Your task to perform on an android device: Clear the cart on bestbuy. Add macbook pro 15 inch to the cart on bestbuy Image 0: 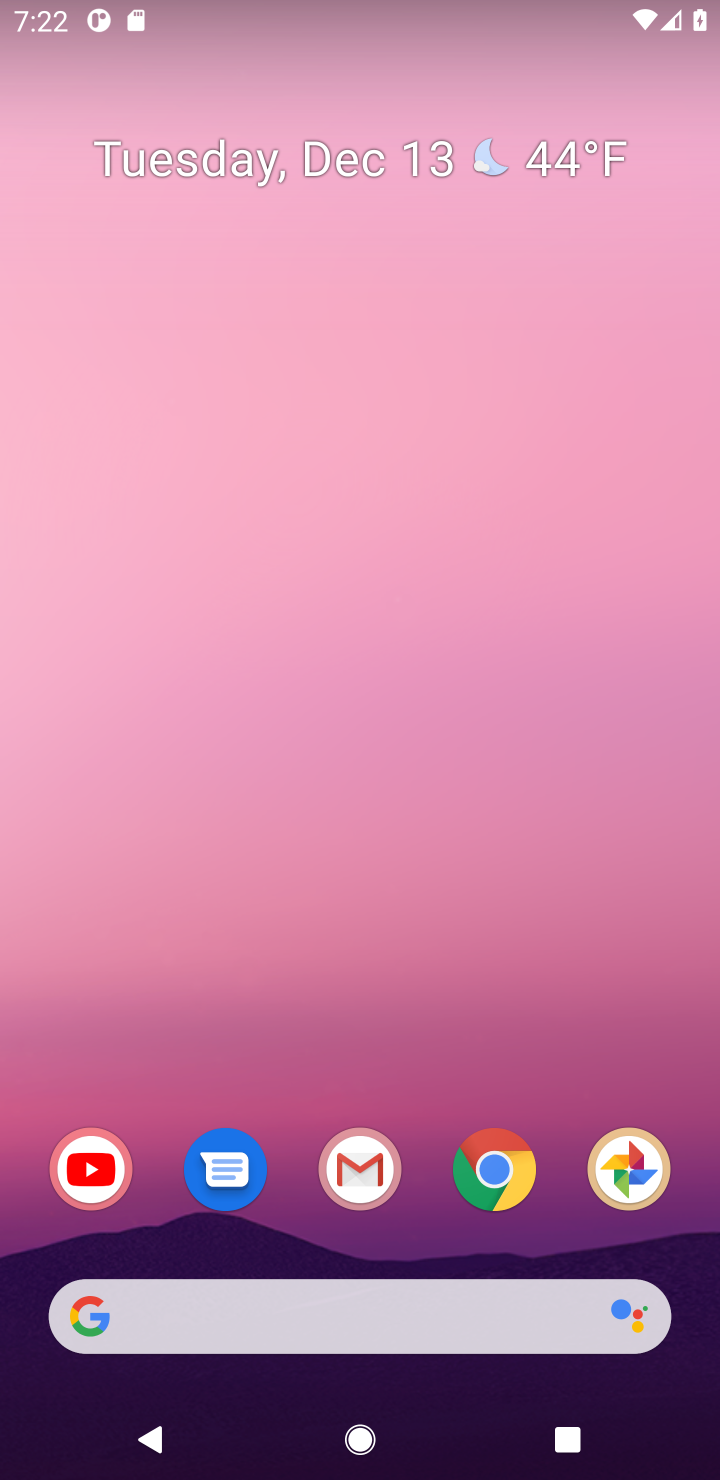
Step 0: click (451, 1320)
Your task to perform on an android device: Clear the cart on bestbuy. Add macbook pro 15 inch to the cart on bestbuy Image 1: 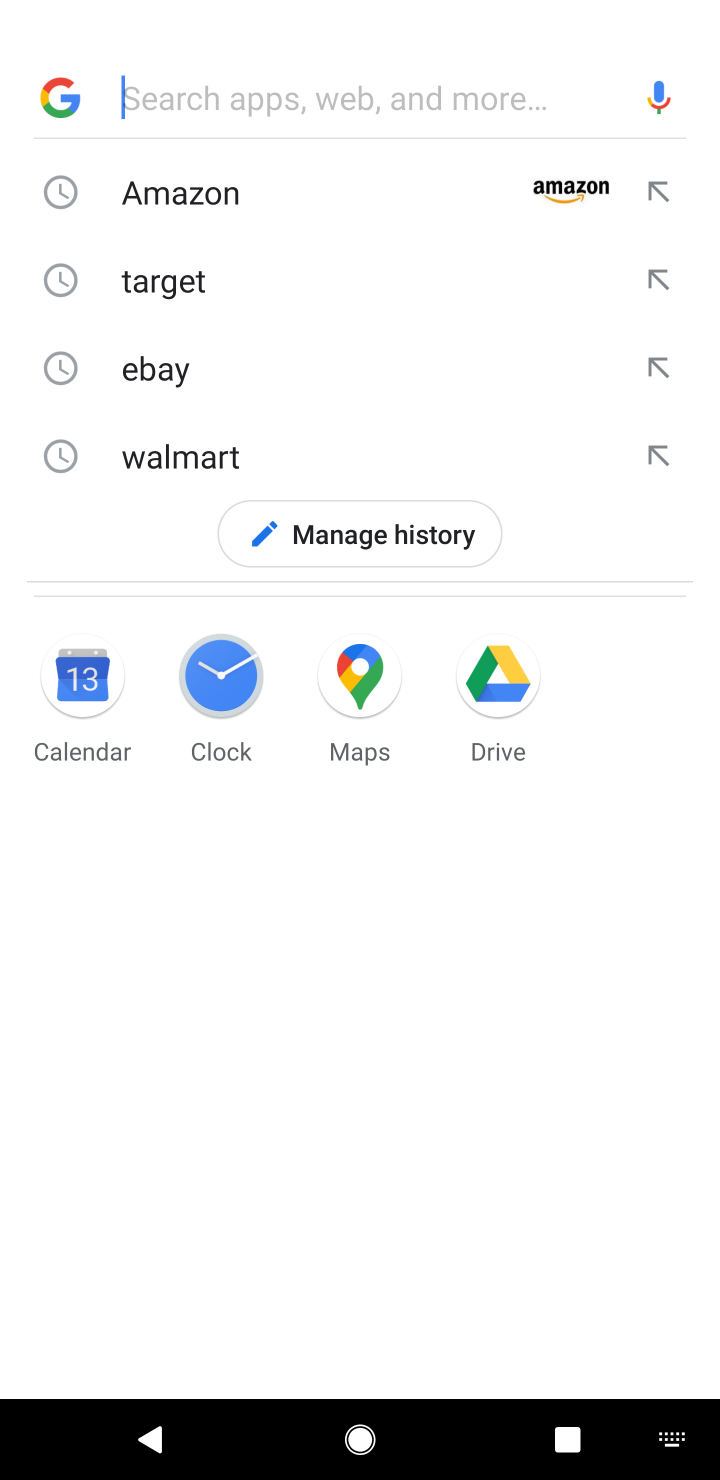
Step 1: press home button
Your task to perform on an android device: Clear the cart on bestbuy. Add macbook pro 15 inch to the cart on bestbuy Image 2: 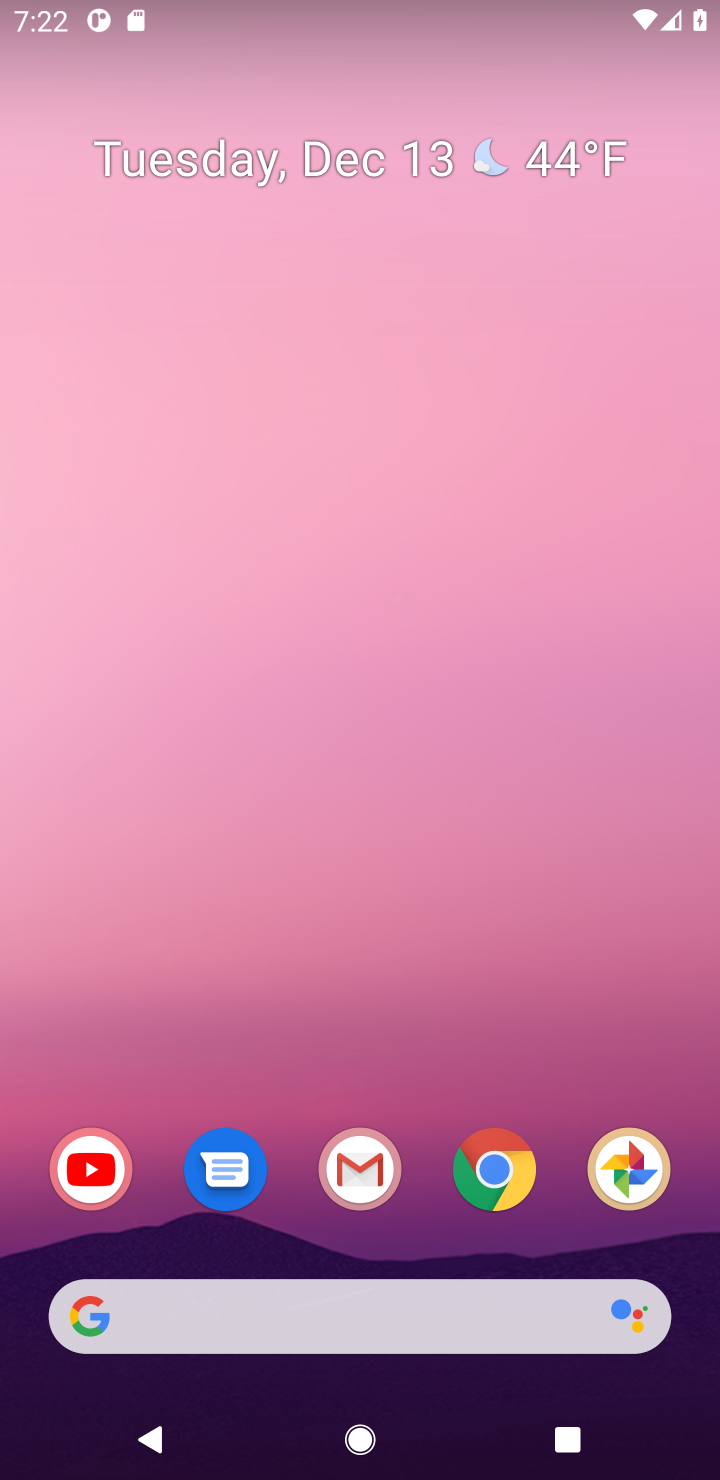
Step 2: click (694, 1154)
Your task to perform on an android device: Clear the cart on bestbuy. Add macbook pro 15 inch to the cart on bestbuy Image 3: 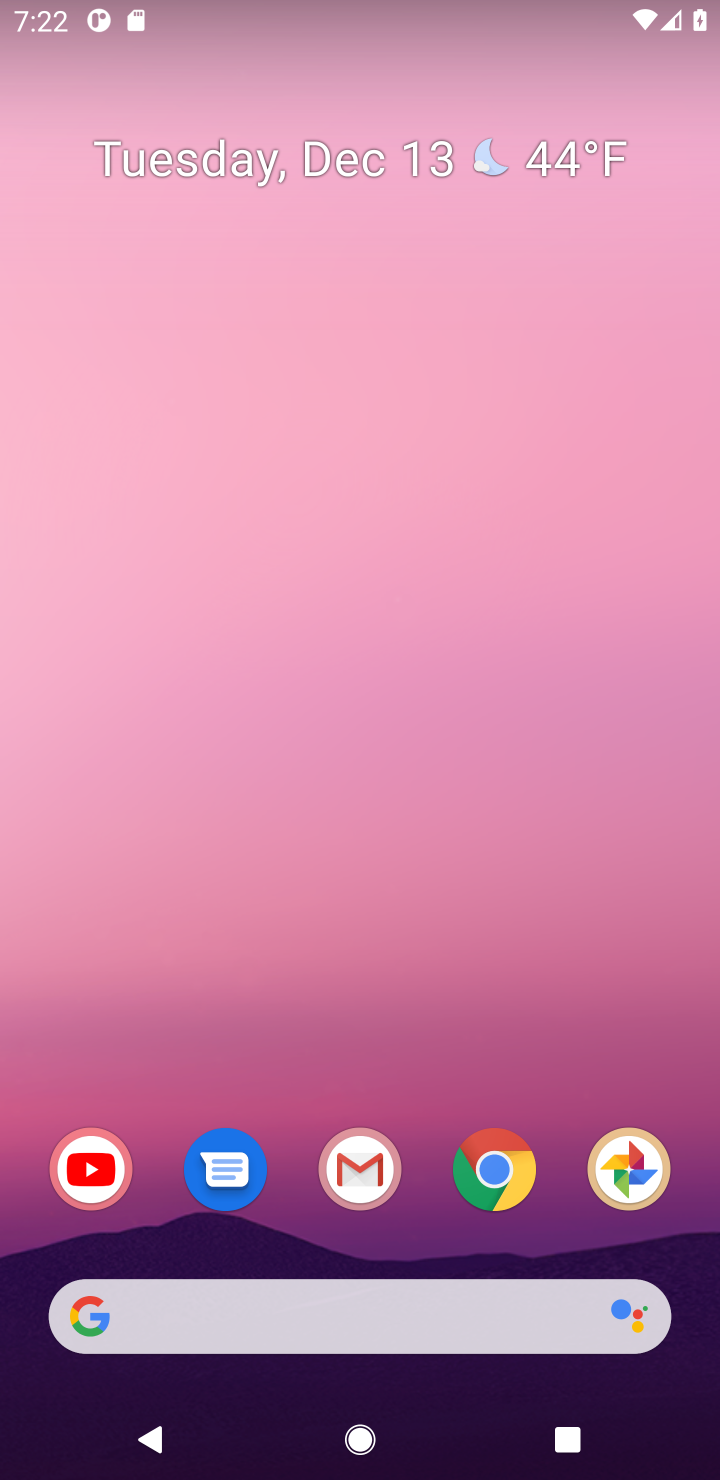
Step 3: click (493, 1204)
Your task to perform on an android device: Clear the cart on bestbuy. Add macbook pro 15 inch to the cart on bestbuy Image 4: 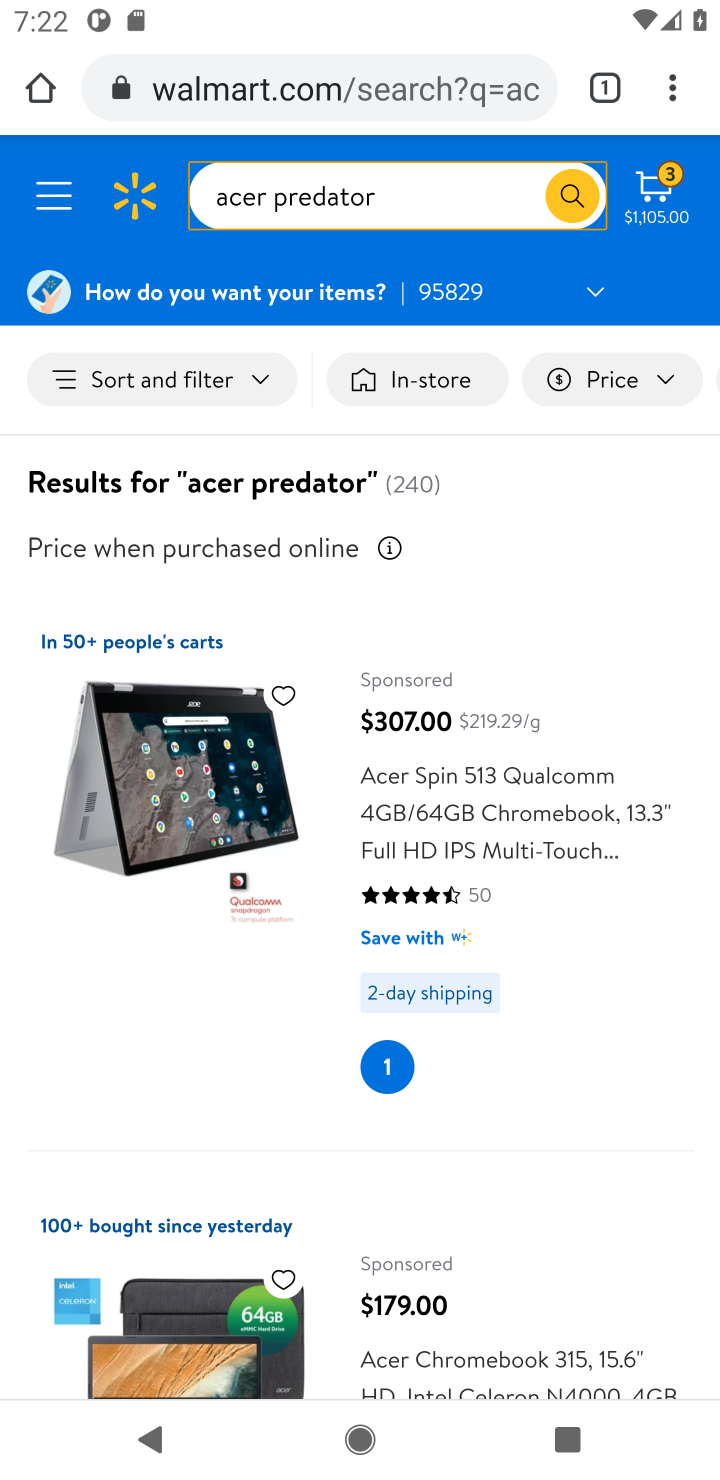
Step 4: click (380, 120)
Your task to perform on an android device: Clear the cart on bestbuy. Add macbook pro 15 inch to the cart on bestbuy Image 5: 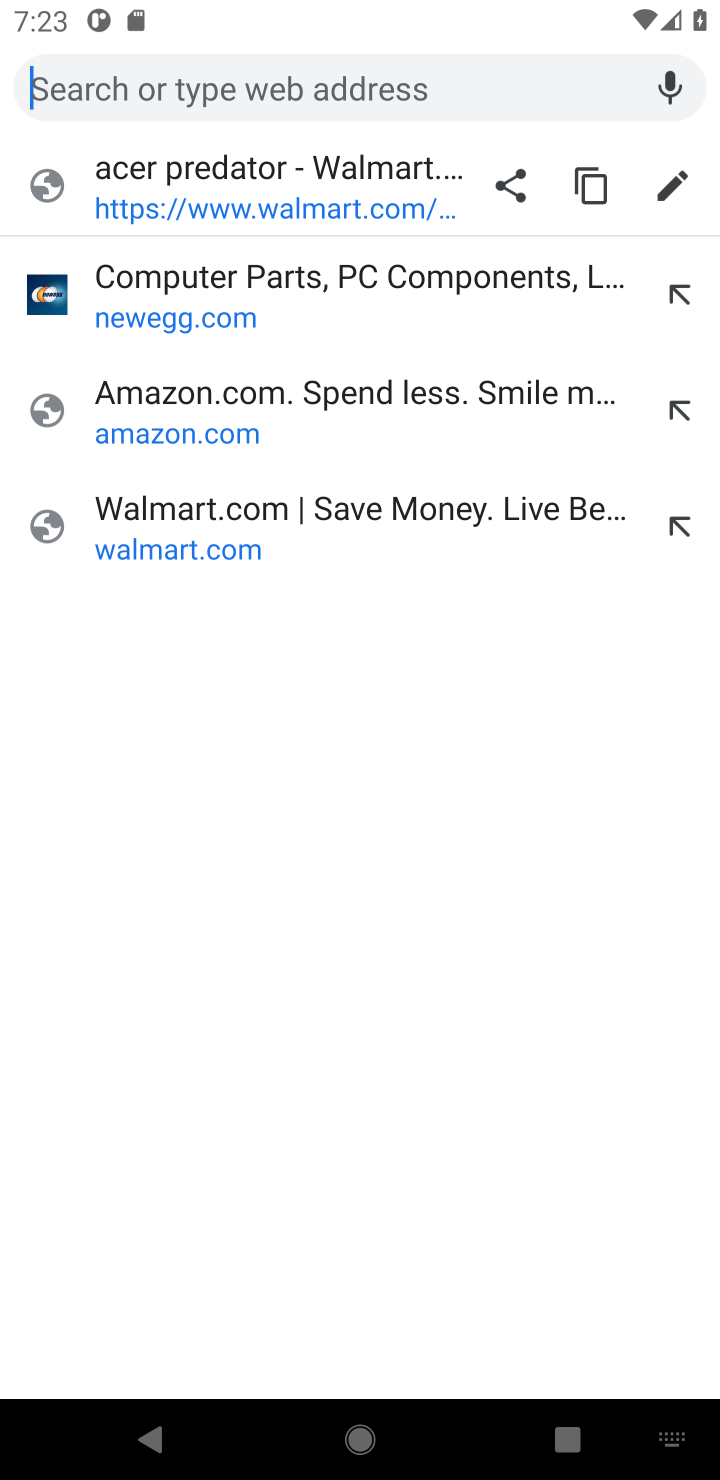
Step 5: type "bestbuy"
Your task to perform on an android device: Clear the cart on bestbuy. Add macbook pro 15 inch to the cart on bestbuy Image 6: 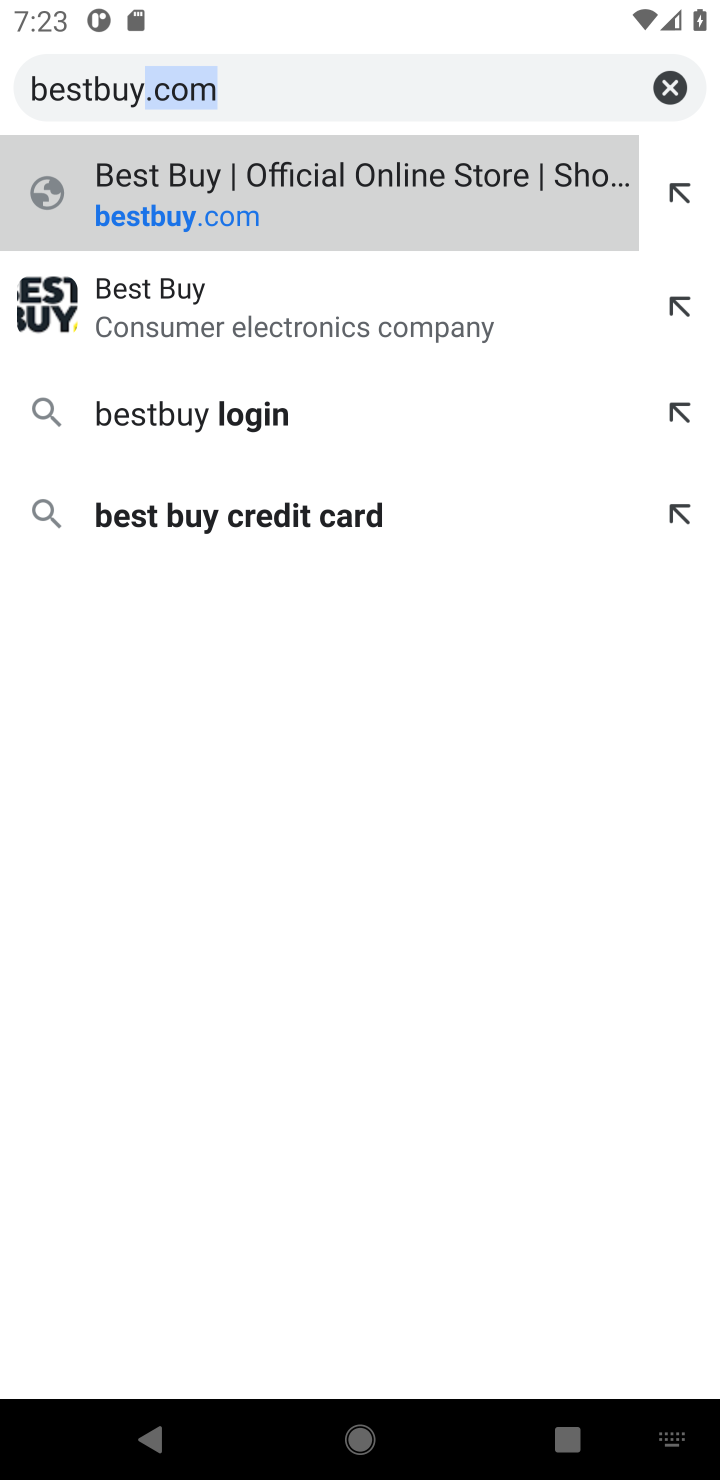
Step 6: click (384, 199)
Your task to perform on an android device: Clear the cart on bestbuy. Add macbook pro 15 inch to the cart on bestbuy Image 7: 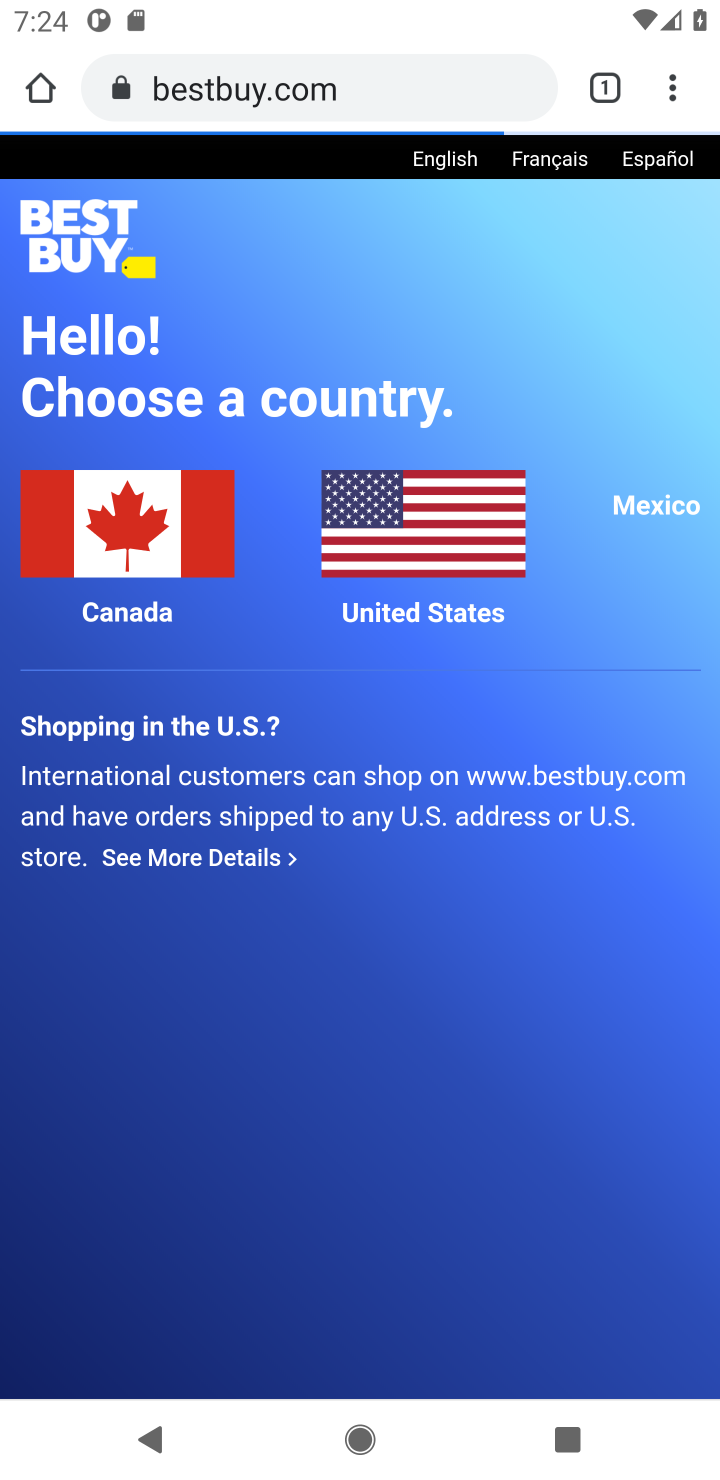
Step 7: click (384, 199)
Your task to perform on an android device: Clear the cart on bestbuy. Add macbook pro 15 inch to the cart on bestbuy Image 8: 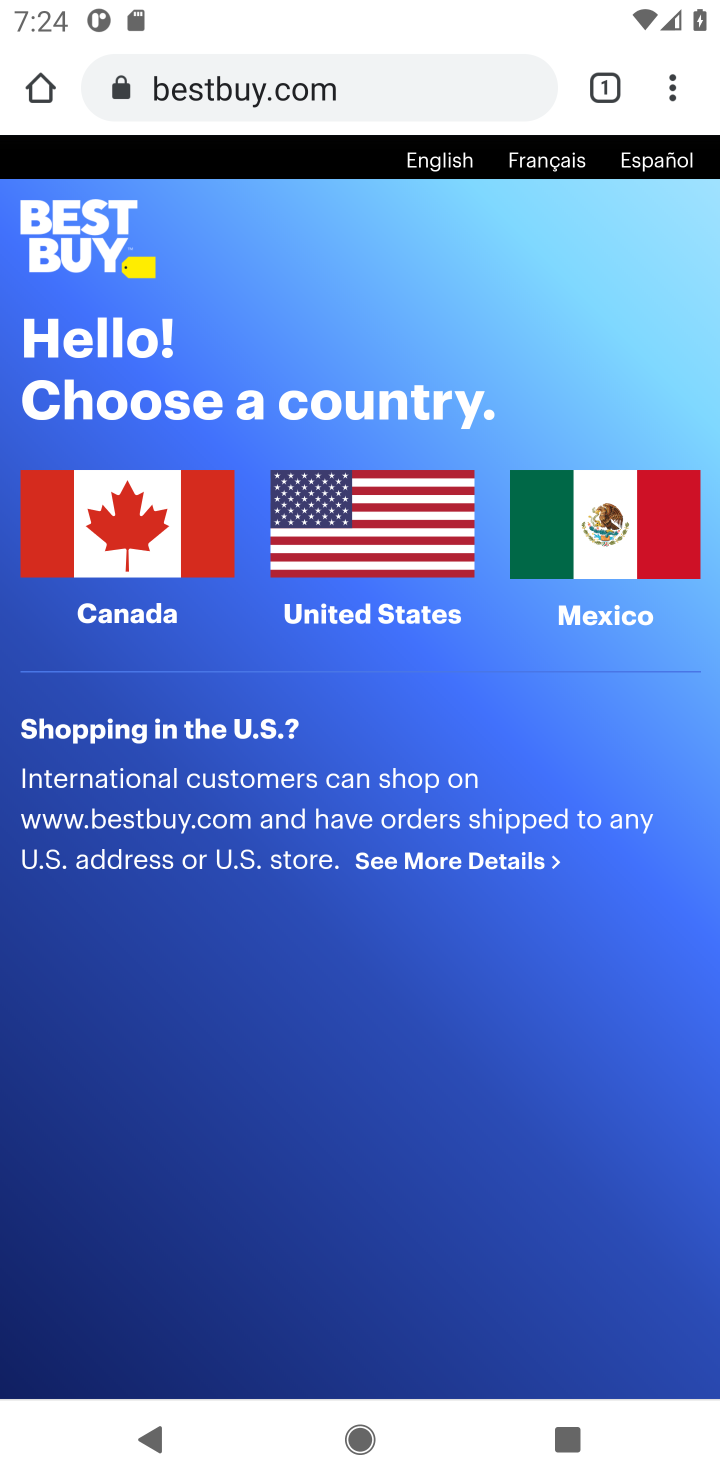
Step 8: click (141, 553)
Your task to perform on an android device: Clear the cart on bestbuy. Add macbook pro 15 inch to the cart on bestbuy Image 9: 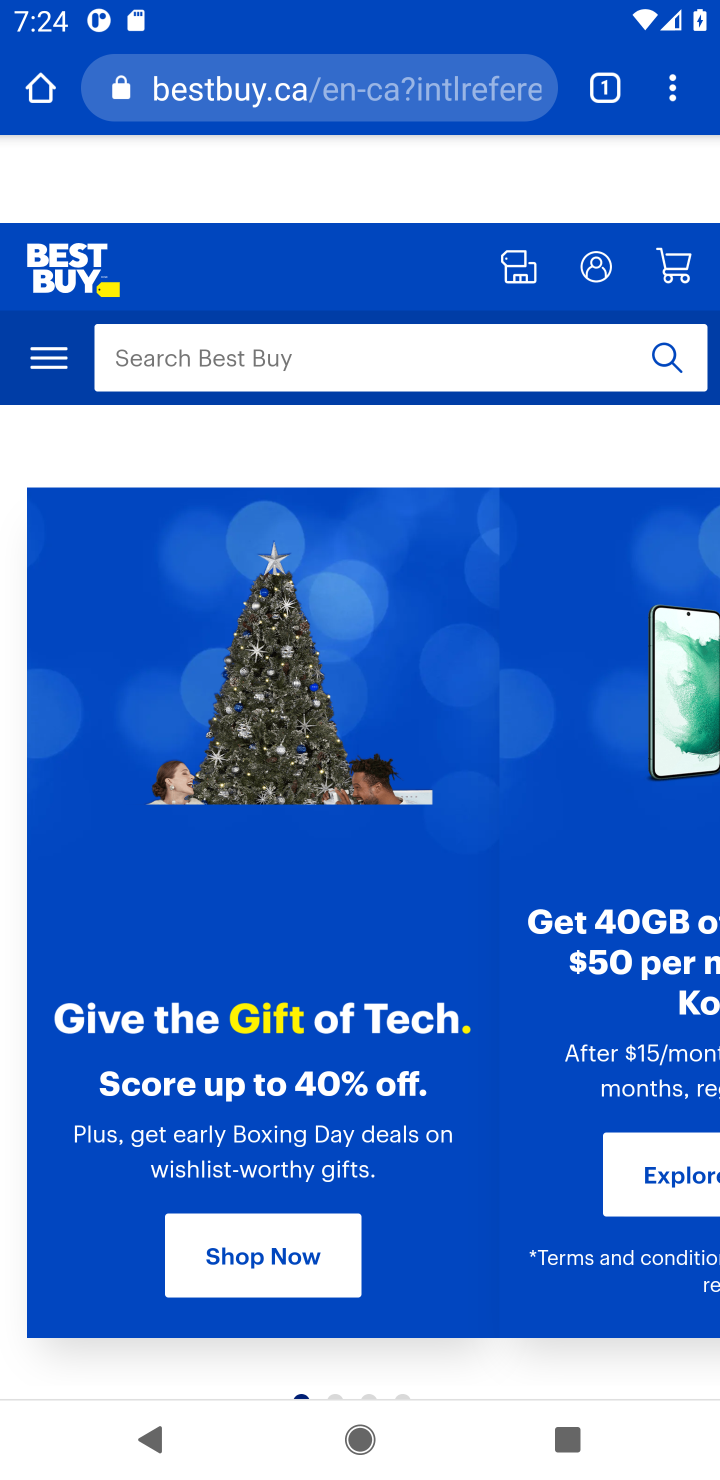
Step 9: click (156, 355)
Your task to perform on an android device: Clear the cart on bestbuy. Add macbook pro 15 inch to the cart on bestbuy Image 10: 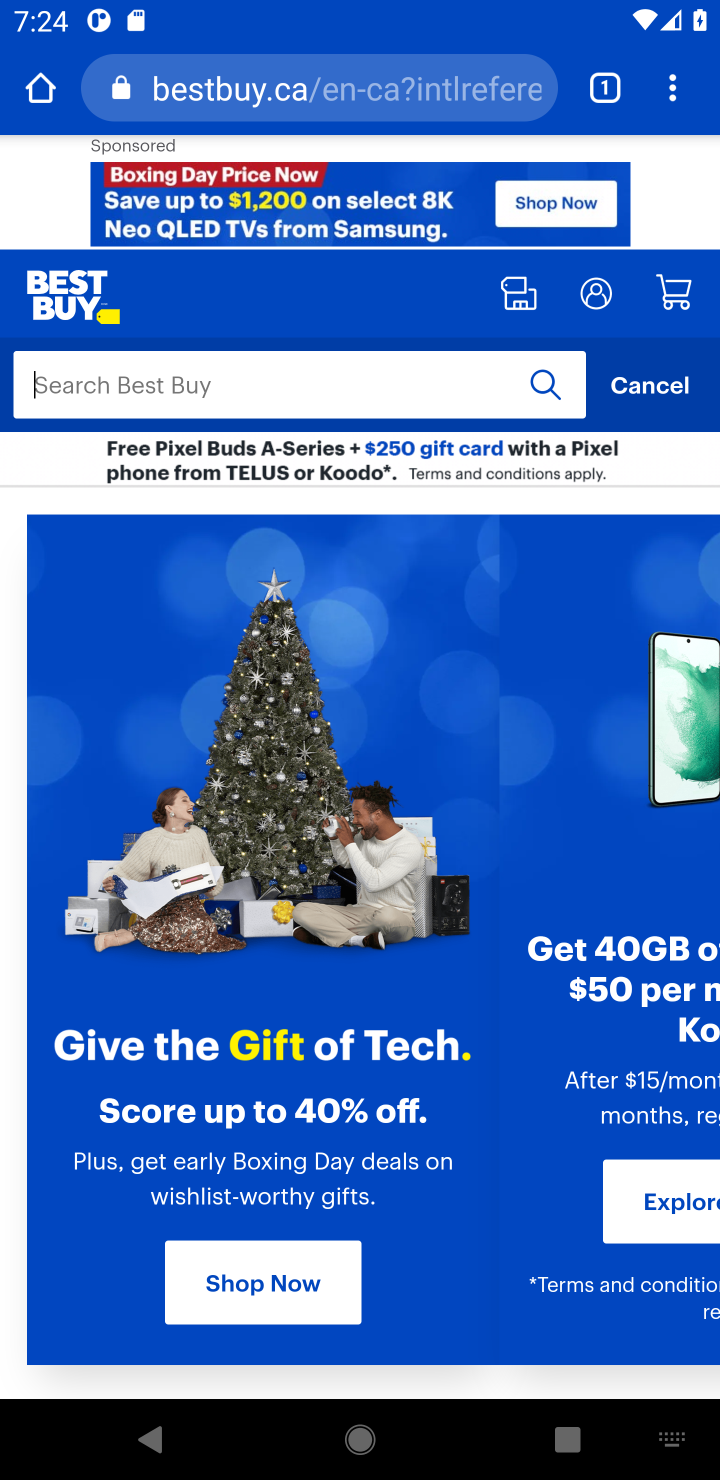
Step 10: type "macbook pro 15"
Your task to perform on an android device: Clear the cart on bestbuy. Add macbook pro 15 inch to the cart on bestbuy Image 11: 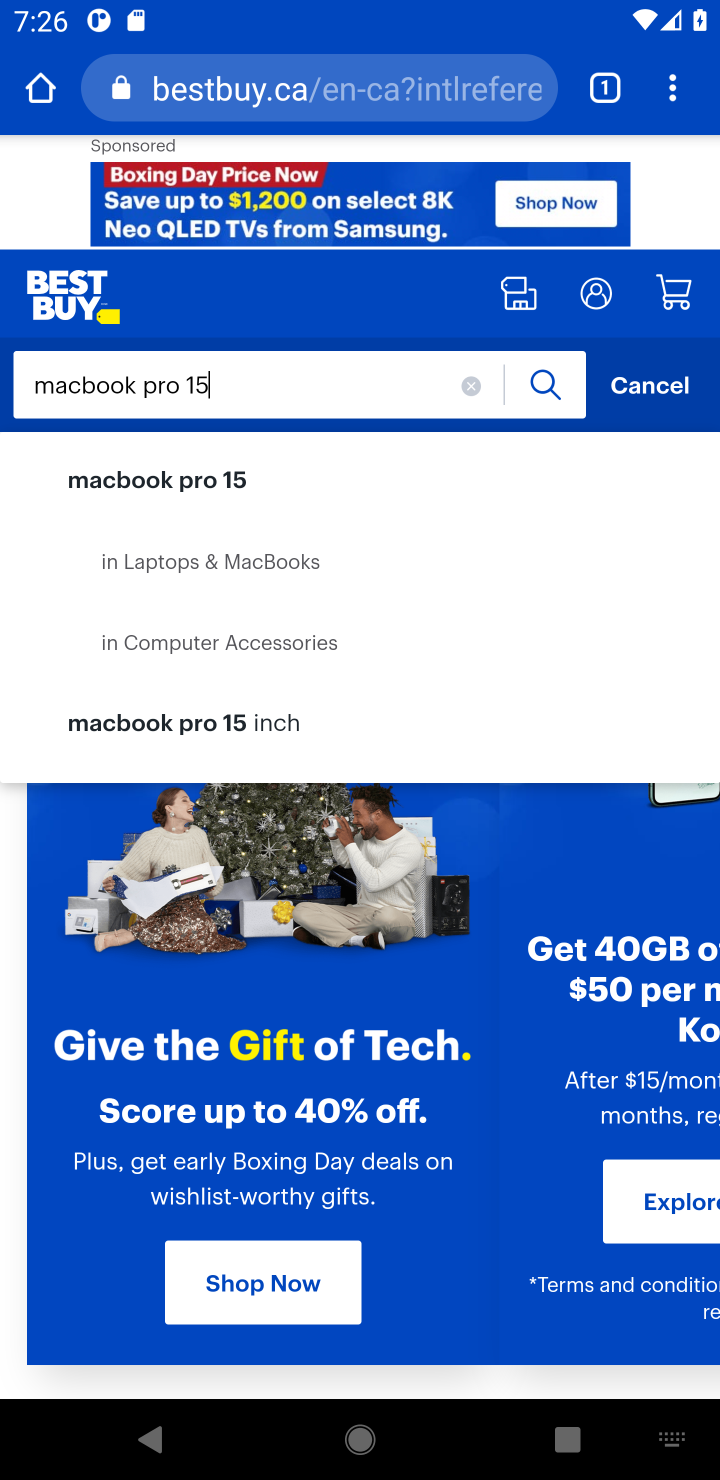
Step 11: task complete